Your task to perform on an android device: change the clock display to analog Image 0: 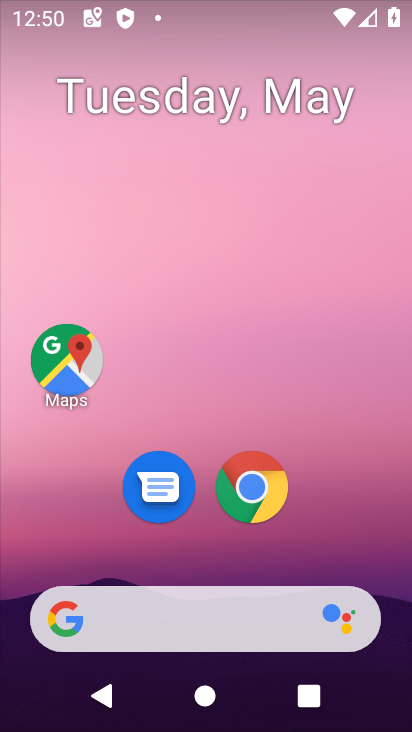
Step 0: drag from (311, 537) to (302, 91)
Your task to perform on an android device: change the clock display to analog Image 1: 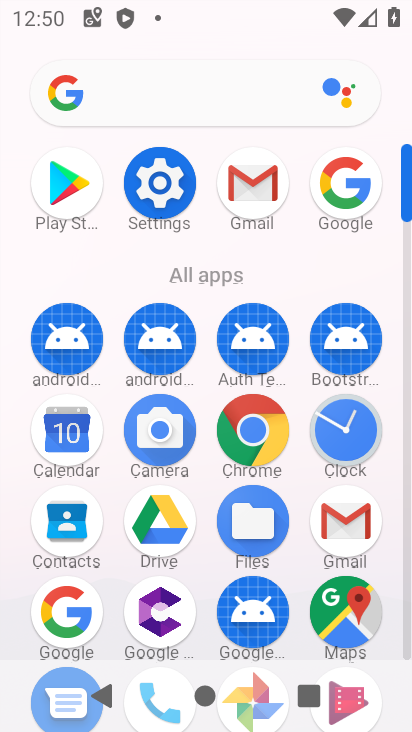
Step 1: click (336, 437)
Your task to perform on an android device: change the clock display to analog Image 2: 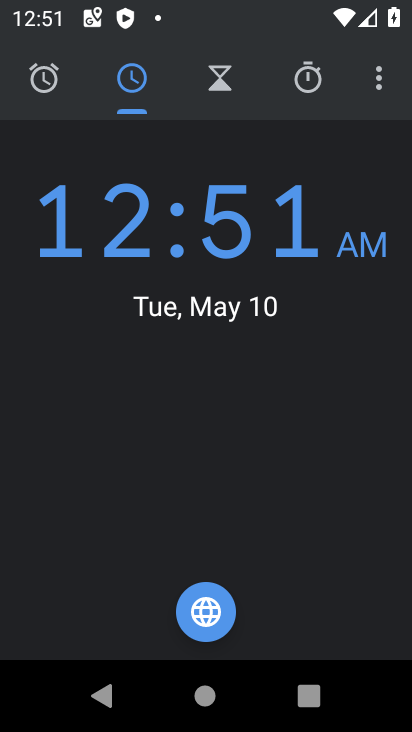
Step 2: click (392, 86)
Your task to perform on an android device: change the clock display to analog Image 3: 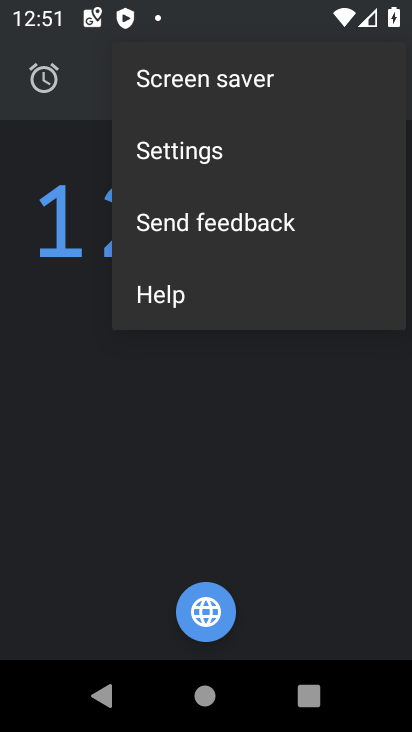
Step 3: click (201, 148)
Your task to perform on an android device: change the clock display to analog Image 4: 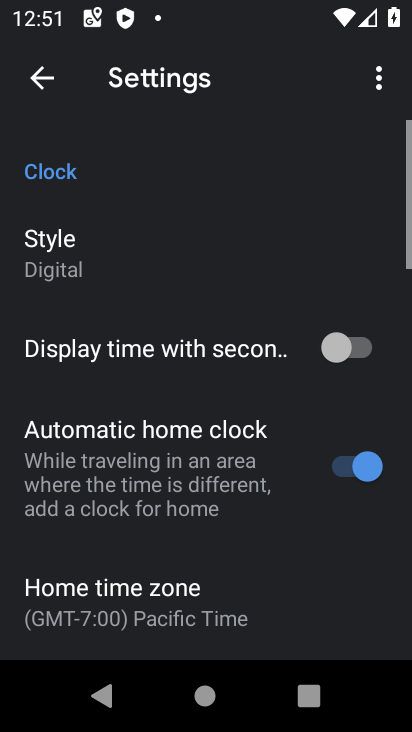
Step 4: click (124, 284)
Your task to perform on an android device: change the clock display to analog Image 5: 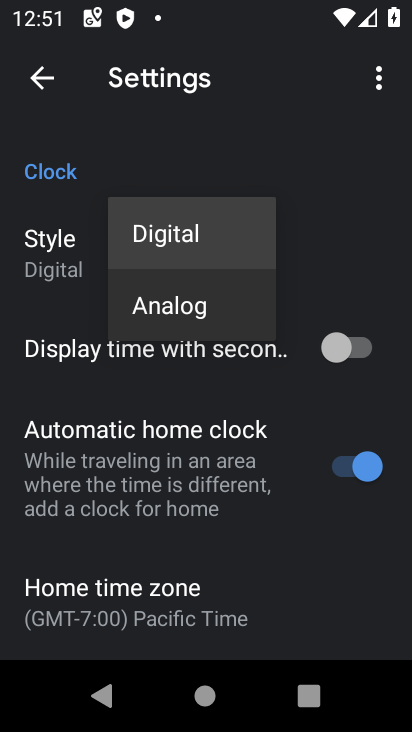
Step 5: click (166, 317)
Your task to perform on an android device: change the clock display to analog Image 6: 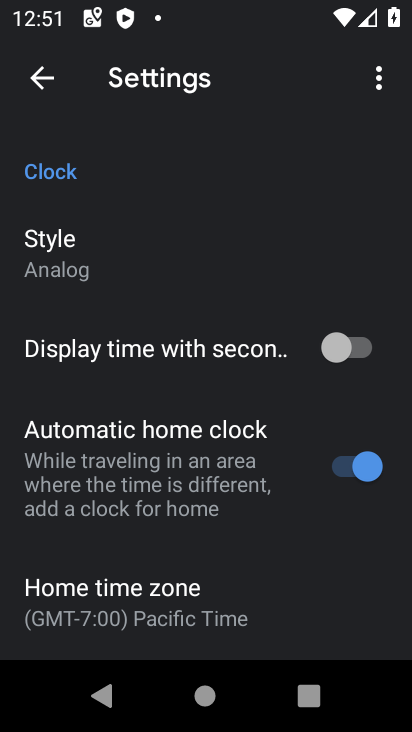
Step 6: task complete